Your task to perform on an android device: toggle improve location accuracy Image 0: 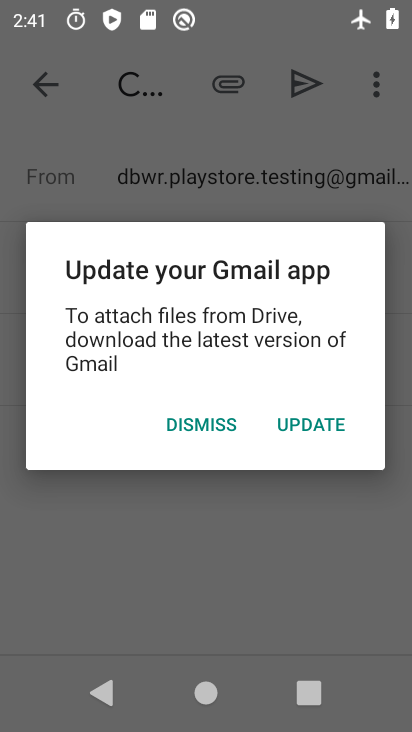
Step 0: click (210, 417)
Your task to perform on an android device: toggle improve location accuracy Image 1: 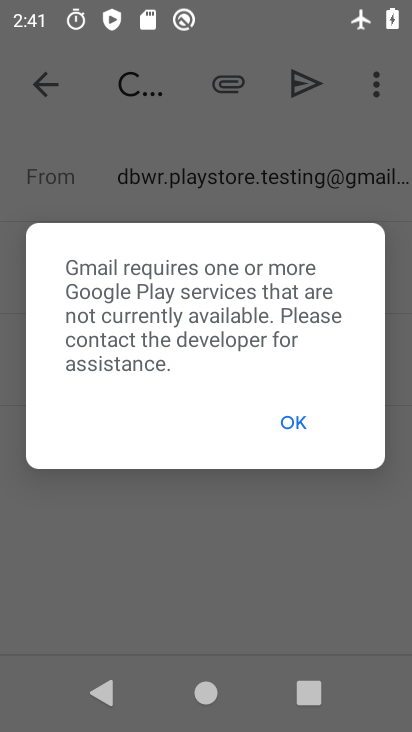
Step 1: press home button
Your task to perform on an android device: toggle improve location accuracy Image 2: 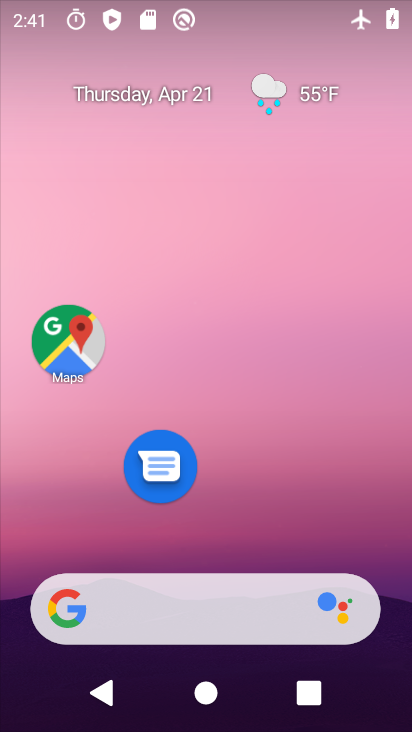
Step 2: drag from (248, 547) to (249, 35)
Your task to perform on an android device: toggle improve location accuracy Image 3: 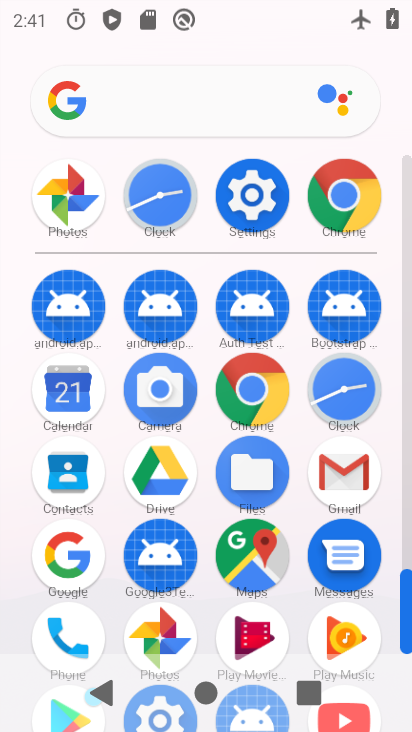
Step 3: click (249, 220)
Your task to perform on an android device: toggle improve location accuracy Image 4: 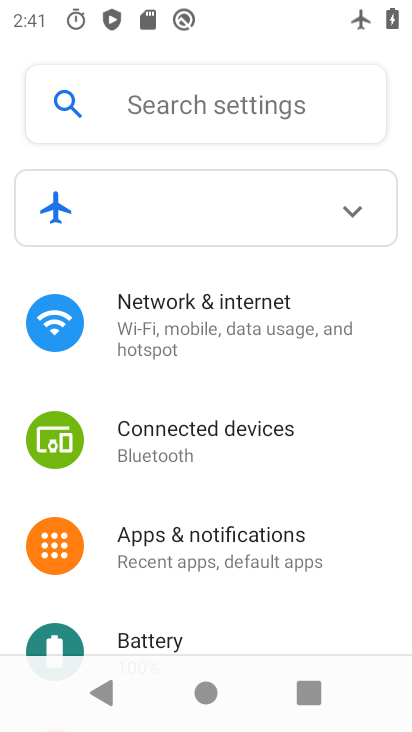
Step 4: drag from (218, 621) to (206, 207)
Your task to perform on an android device: toggle improve location accuracy Image 5: 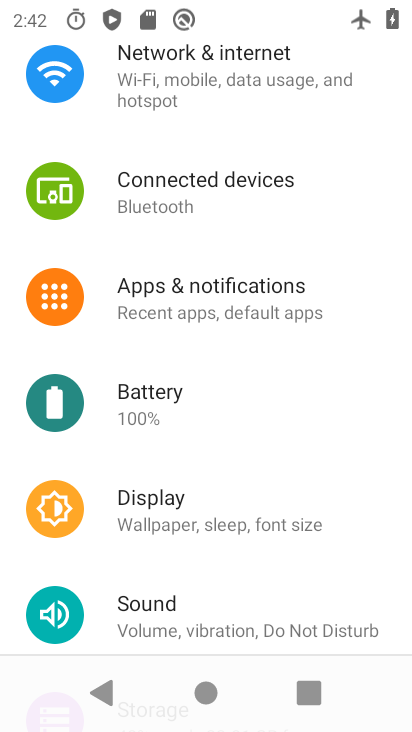
Step 5: drag from (250, 603) to (258, 259)
Your task to perform on an android device: toggle improve location accuracy Image 6: 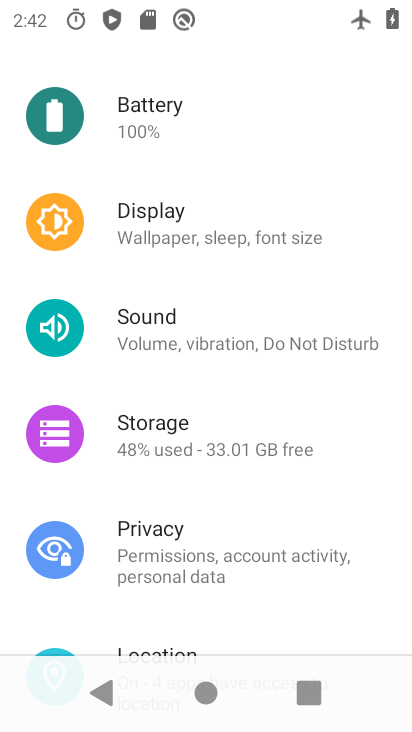
Step 6: drag from (213, 627) to (211, 292)
Your task to perform on an android device: toggle improve location accuracy Image 7: 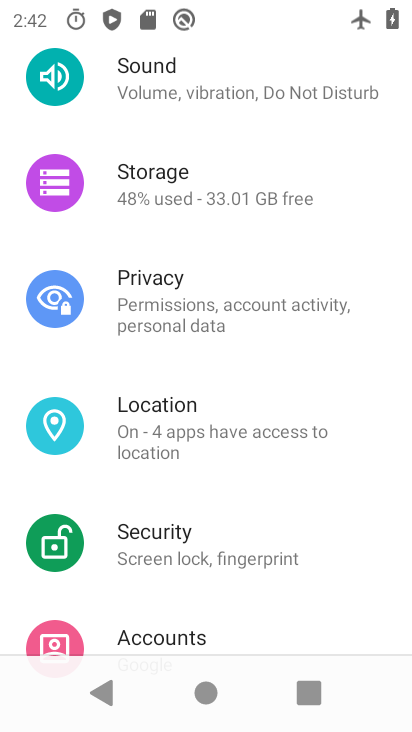
Step 7: click (209, 424)
Your task to perform on an android device: toggle improve location accuracy Image 8: 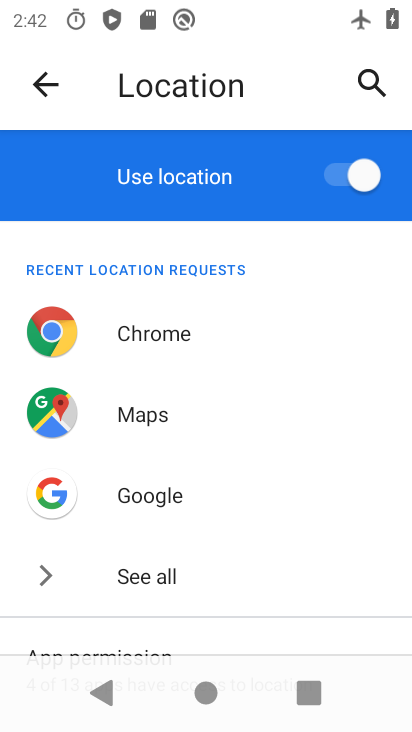
Step 8: drag from (216, 626) to (222, 241)
Your task to perform on an android device: toggle improve location accuracy Image 9: 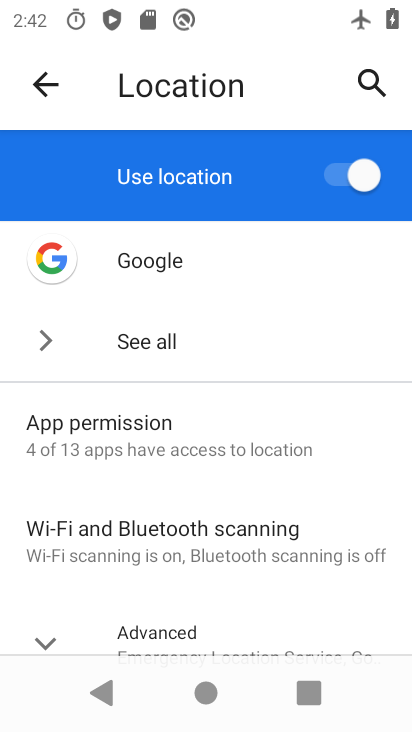
Step 9: drag from (230, 628) to (239, 393)
Your task to perform on an android device: toggle improve location accuracy Image 10: 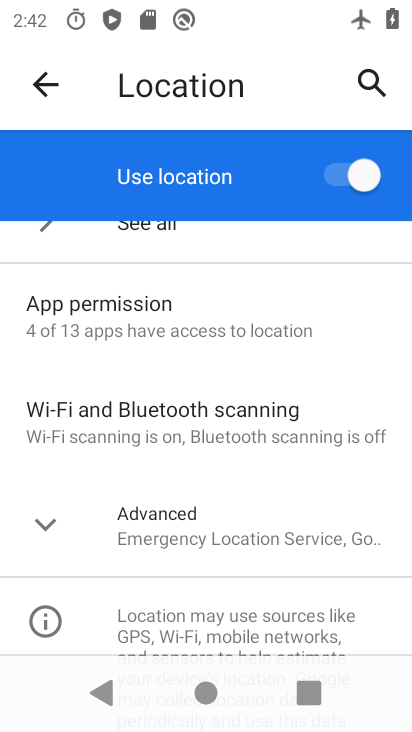
Step 10: click (226, 526)
Your task to perform on an android device: toggle improve location accuracy Image 11: 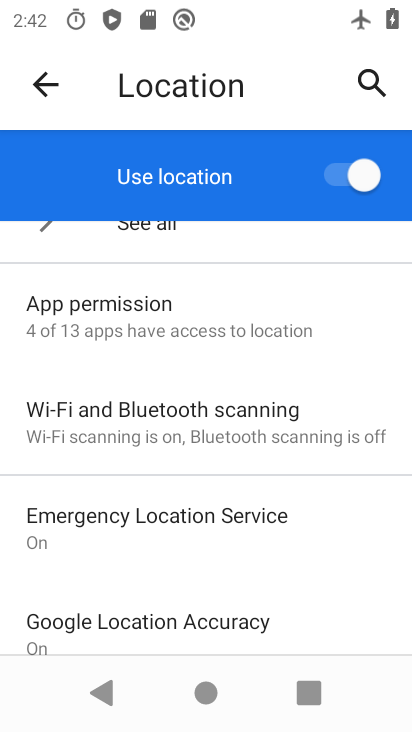
Step 11: click (219, 629)
Your task to perform on an android device: toggle improve location accuracy Image 12: 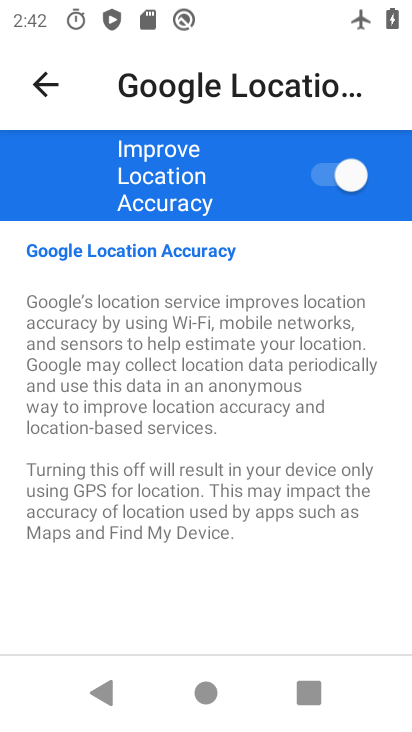
Step 12: click (332, 176)
Your task to perform on an android device: toggle improve location accuracy Image 13: 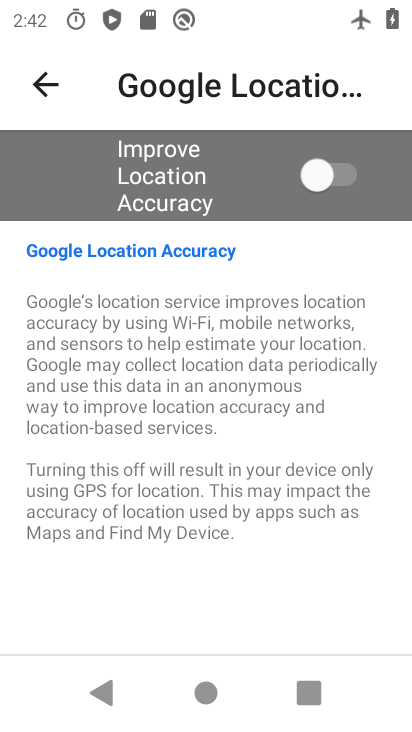
Step 13: task complete